Your task to perform on an android device: turn off translation in the chrome app Image 0: 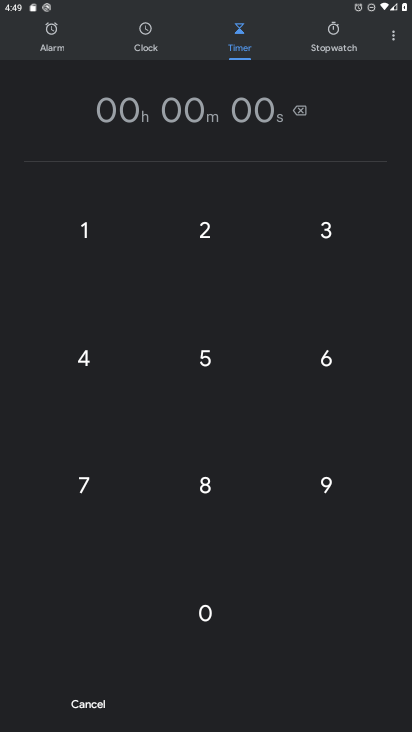
Step 0: press home button
Your task to perform on an android device: turn off translation in the chrome app Image 1: 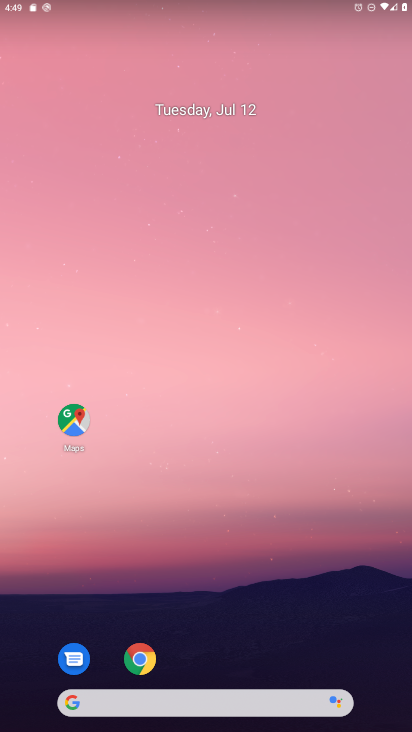
Step 1: drag from (204, 589) to (189, 195)
Your task to perform on an android device: turn off translation in the chrome app Image 2: 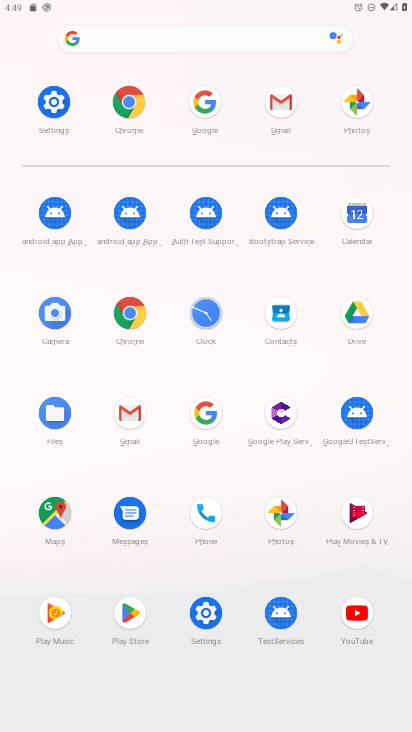
Step 2: click (126, 118)
Your task to perform on an android device: turn off translation in the chrome app Image 3: 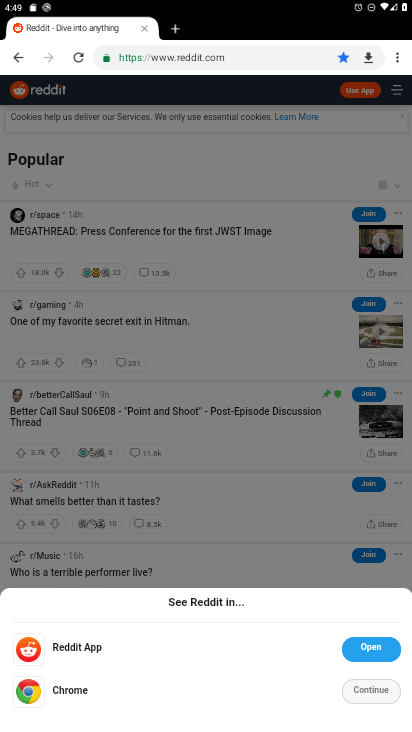
Step 3: click (394, 57)
Your task to perform on an android device: turn off translation in the chrome app Image 4: 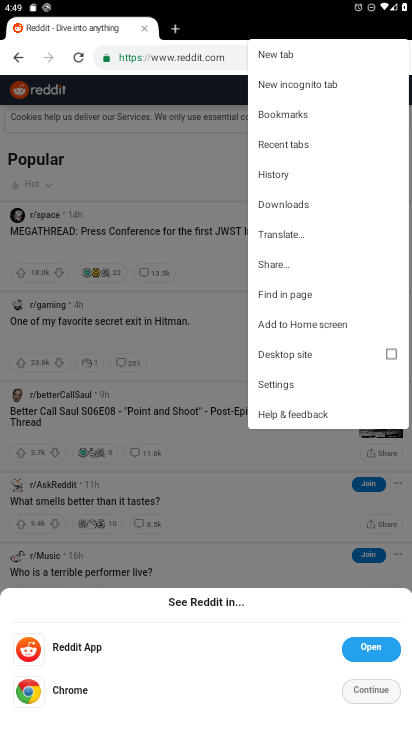
Step 4: click (267, 391)
Your task to perform on an android device: turn off translation in the chrome app Image 5: 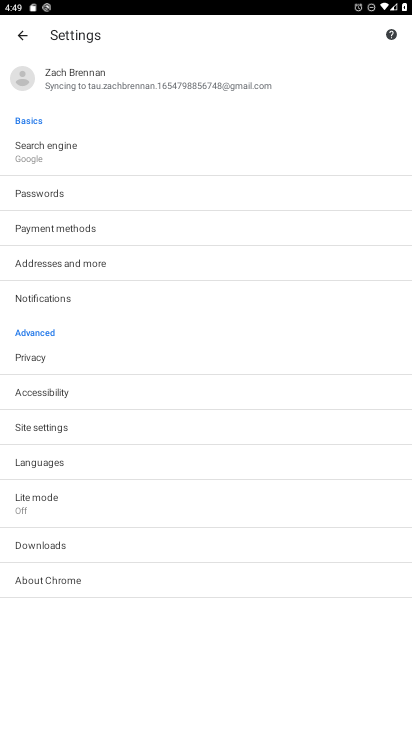
Step 5: click (46, 464)
Your task to perform on an android device: turn off translation in the chrome app Image 6: 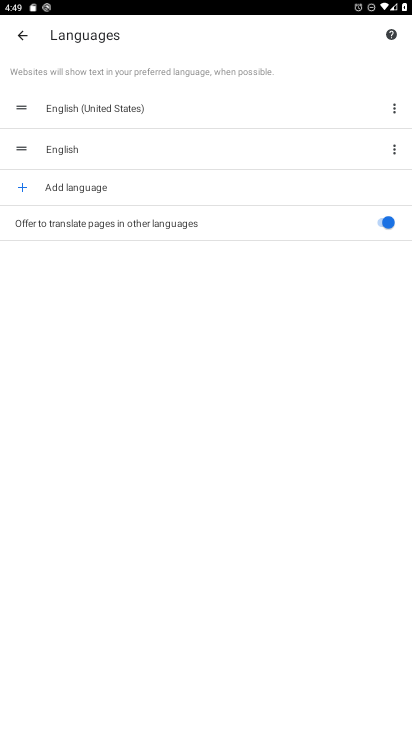
Step 6: click (378, 227)
Your task to perform on an android device: turn off translation in the chrome app Image 7: 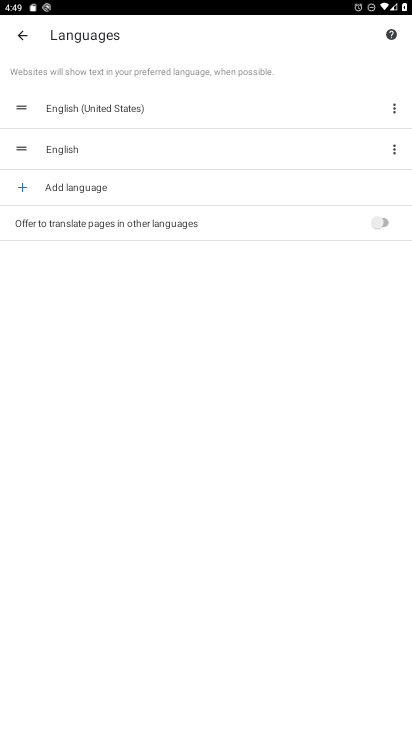
Step 7: task complete